Your task to perform on an android device: Open Android settings Image 0: 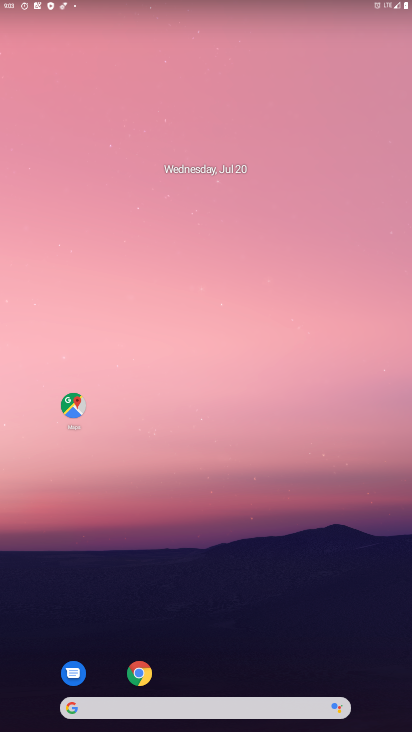
Step 0: drag from (215, 664) to (208, 55)
Your task to perform on an android device: Open Android settings Image 1: 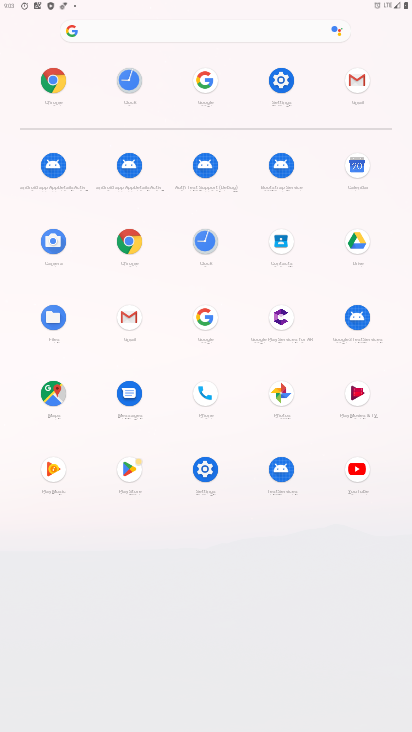
Step 1: click (288, 76)
Your task to perform on an android device: Open Android settings Image 2: 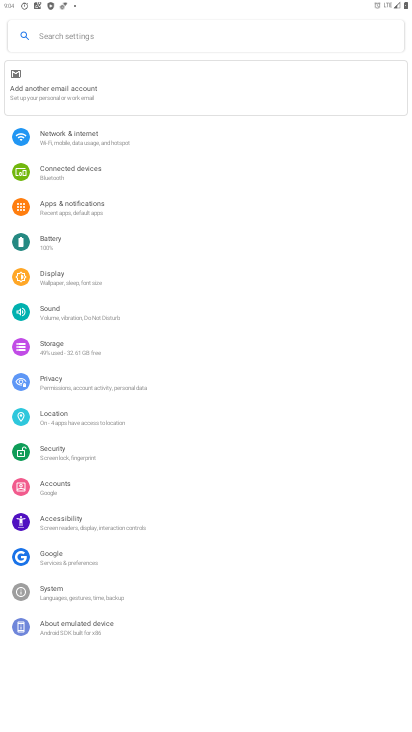
Step 2: task complete